Your task to perform on an android device: Check the weather Image 0: 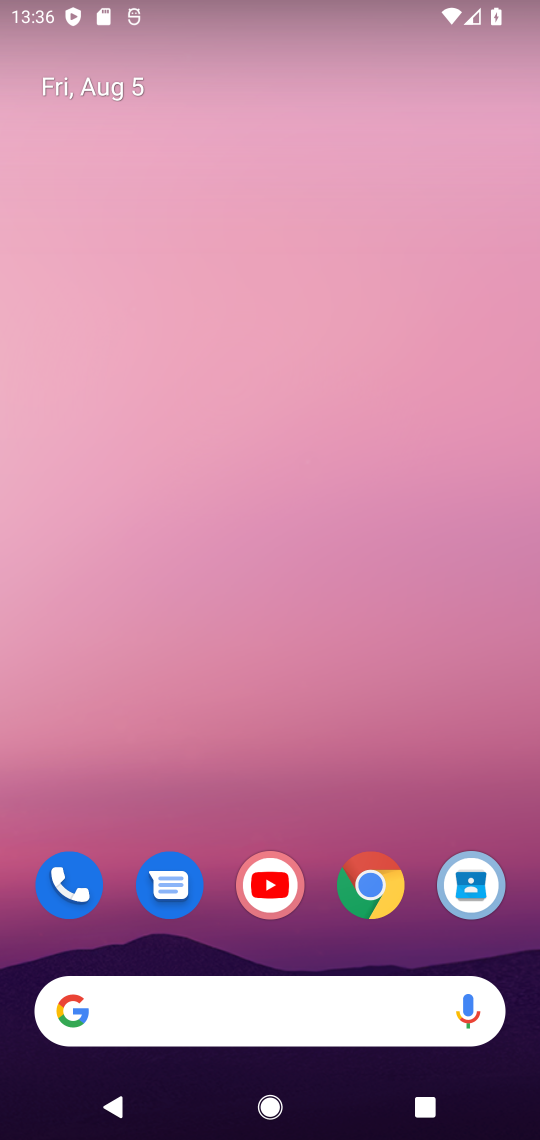
Step 0: click (277, 1015)
Your task to perform on an android device: Check the weather Image 1: 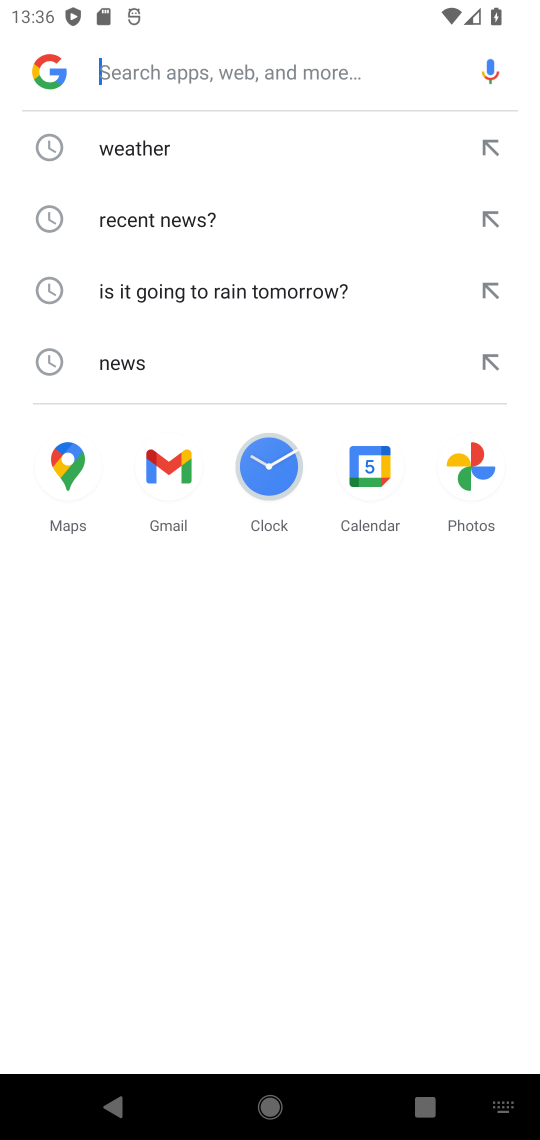
Step 1: click (126, 153)
Your task to perform on an android device: Check the weather Image 2: 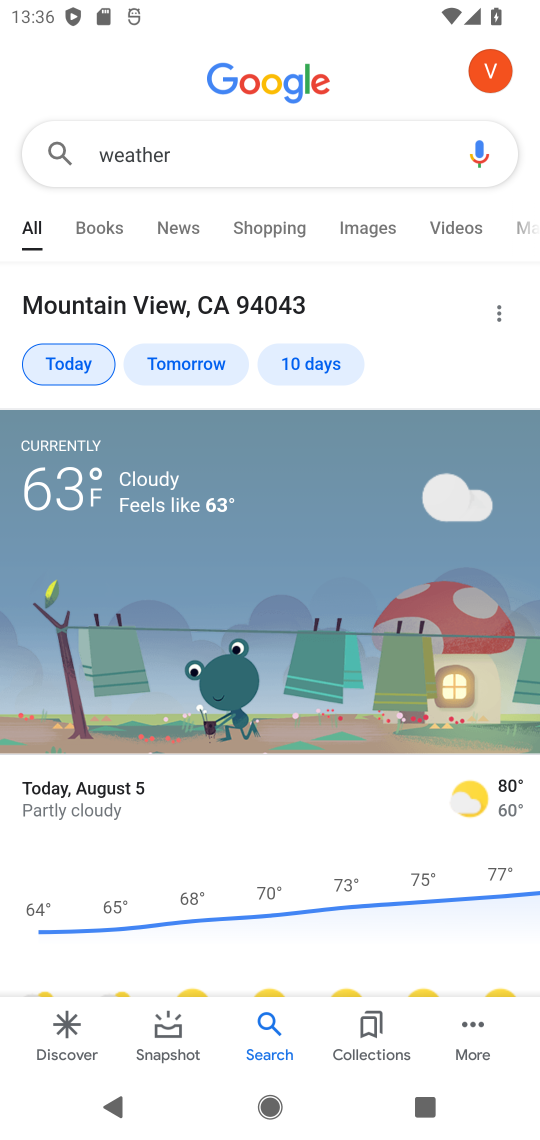
Step 2: task complete